Your task to perform on an android device: What's the news in Pakistan? Image 0: 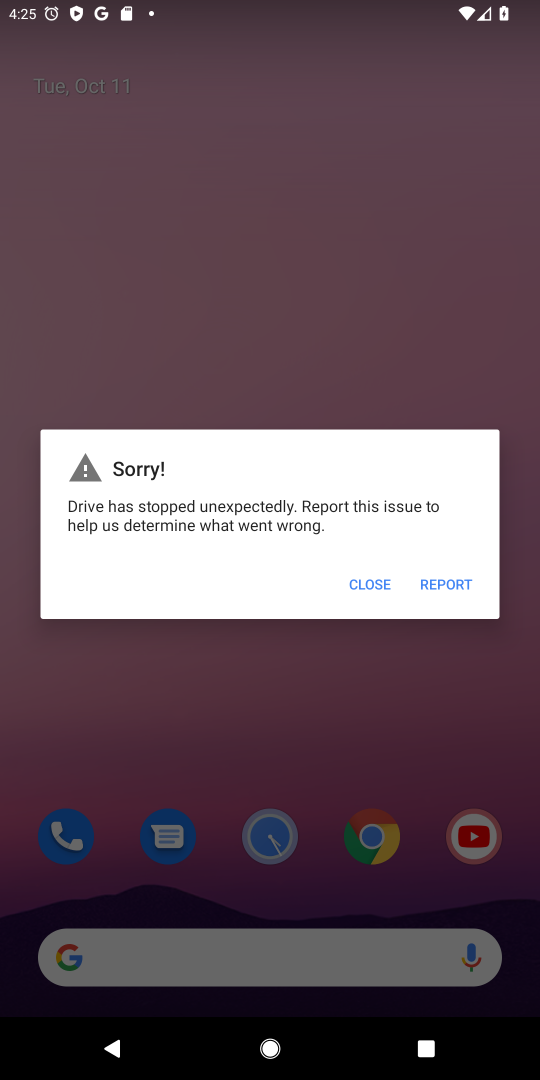
Step 0: click (368, 590)
Your task to perform on an android device: What's the news in Pakistan? Image 1: 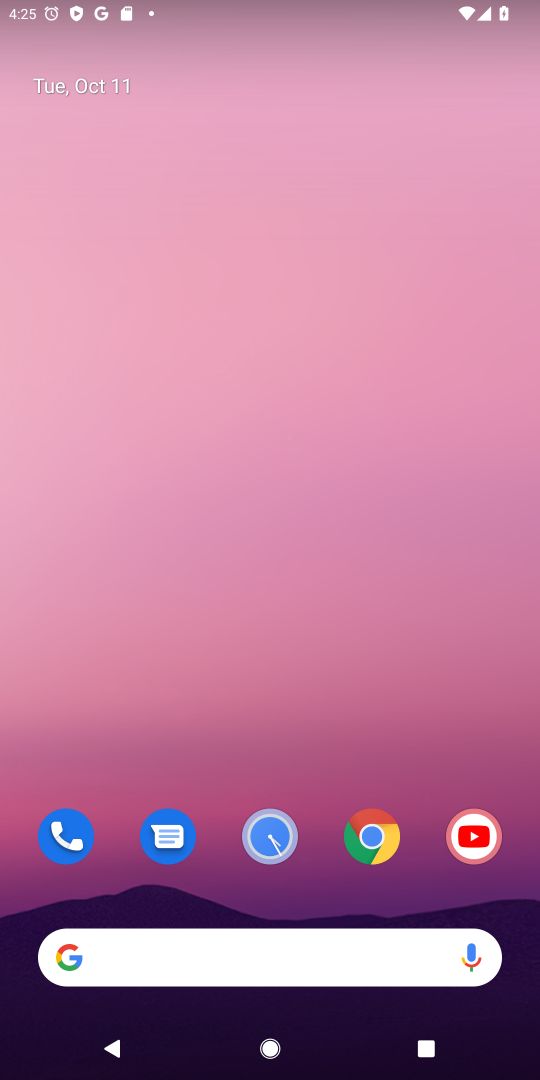
Step 1: click (296, 946)
Your task to perform on an android device: What's the news in Pakistan? Image 2: 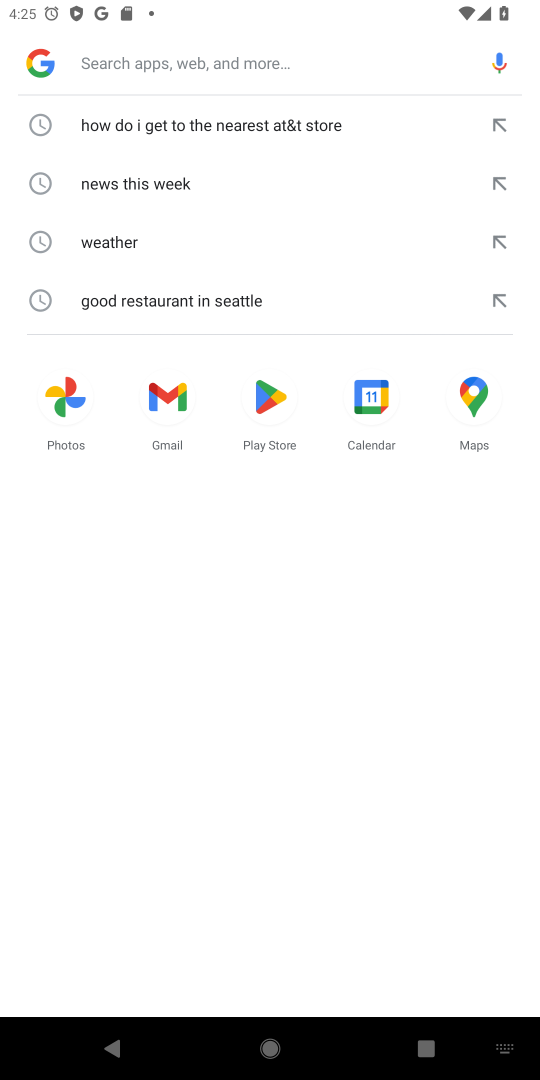
Step 2: type " the news in Pakistan"
Your task to perform on an android device: What's the news in Pakistan? Image 3: 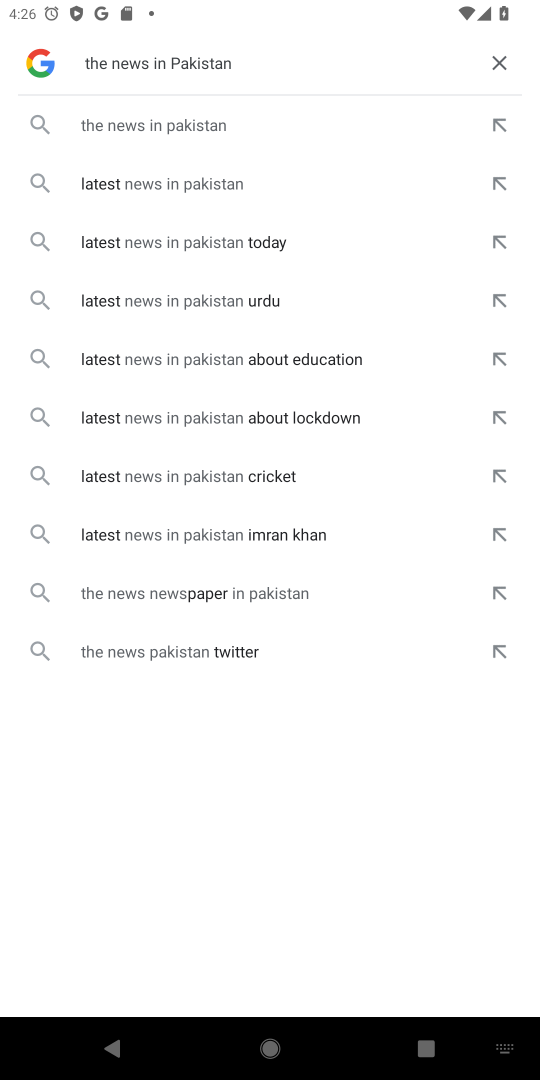
Step 3: click (234, 120)
Your task to perform on an android device: What's the news in Pakistan? Image 4: 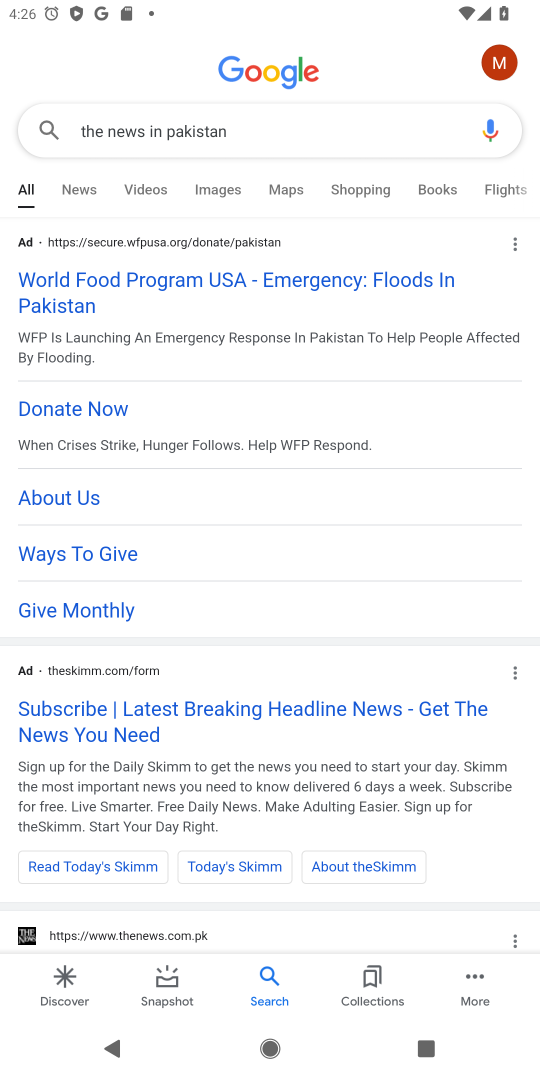
Step 4: click (391, 280)
Your task to perform on an android device: What's the news in Pakistan? Image 5: 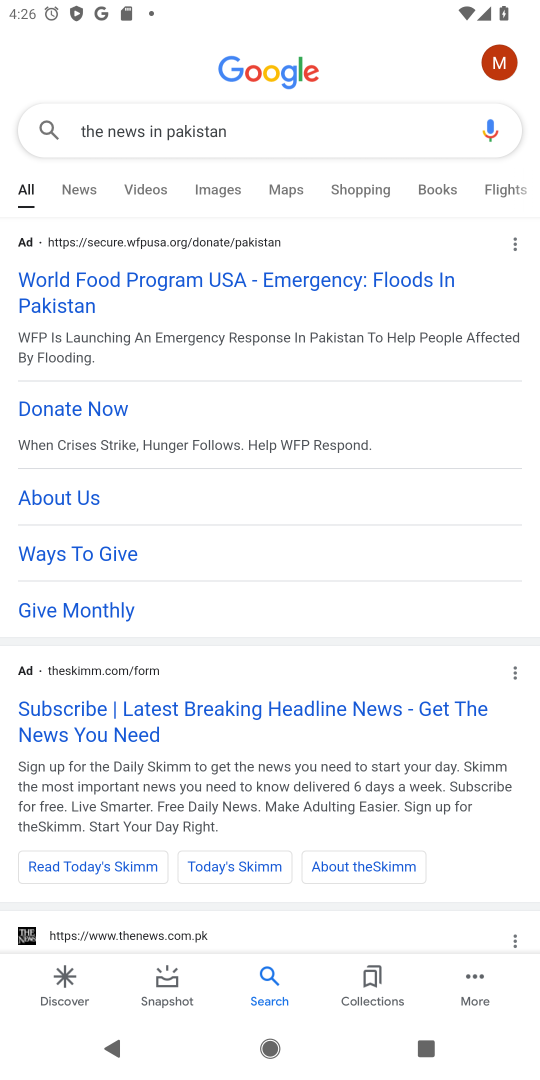
Step 5: task complete